Your task to perform on an android device: open sync settings in chrome Image 0: 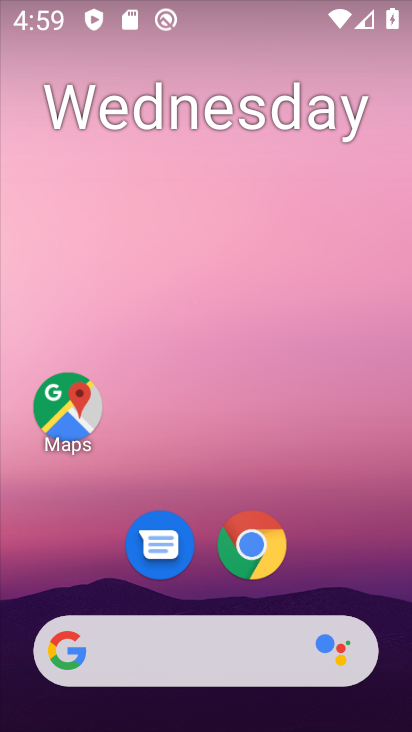
Step 0: click (257, 538)
Your task to perform on an android device: open sync settings in chrome Image 1: 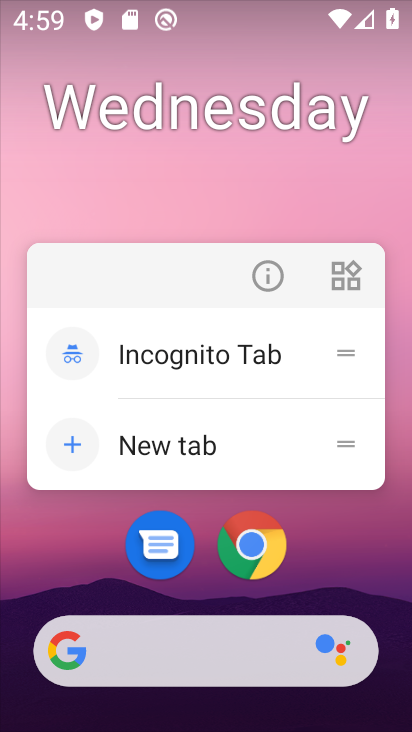
Step 1: click (241, 550)
Your task to perform on an android device: open sync settings in chrome Image 2: 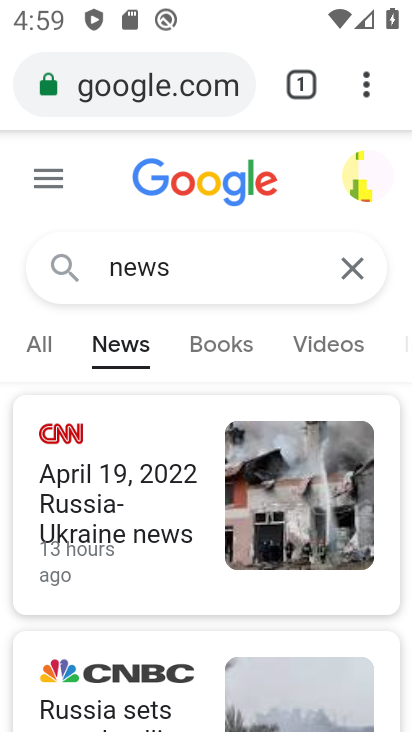
Step 2: drag from (372, 91) to (185, 591)
Your task to perform on an android device: open sync settings in chrome Image 3: 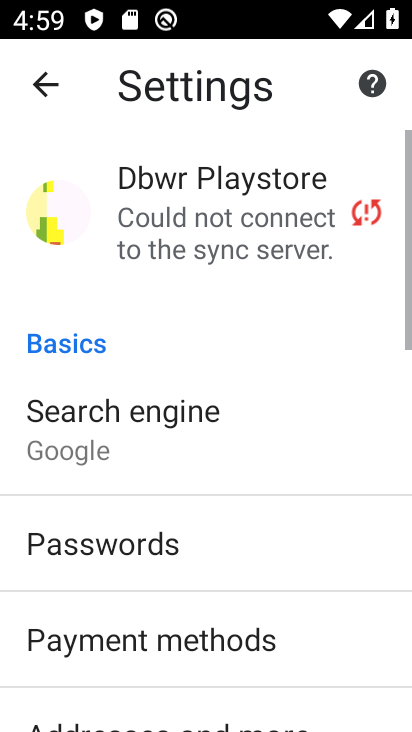
Step 3: click (215, 203)
Your task to perform on an android device: open sync settings in chrome Image 4: 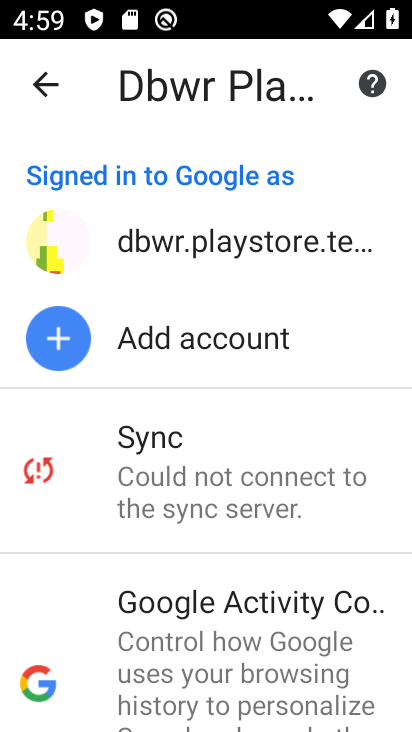
Step 4: click (176, 463)
Your task to perform on an android device: open sync settings in chrome Image 5: 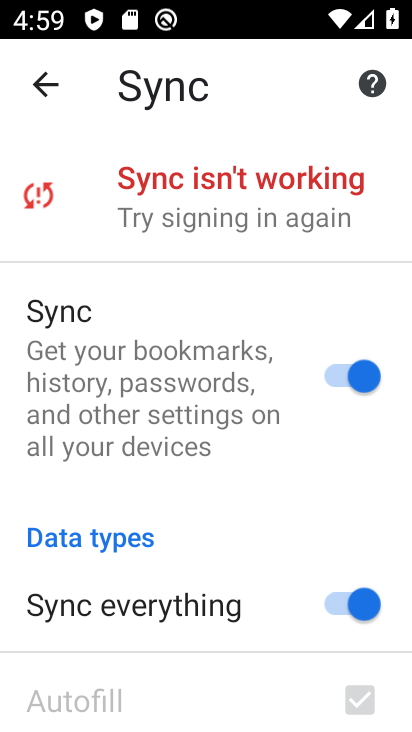
Step 5: task complete